Your task to perform on an android device: Open Chrome and go to settings Image 0: 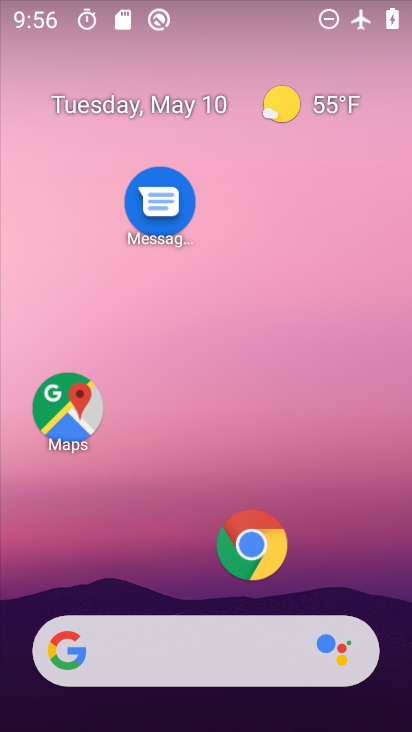
Step 0: click (243, 537)
Your task to perform on an android device: Open Chrome and go to settings Image 1: 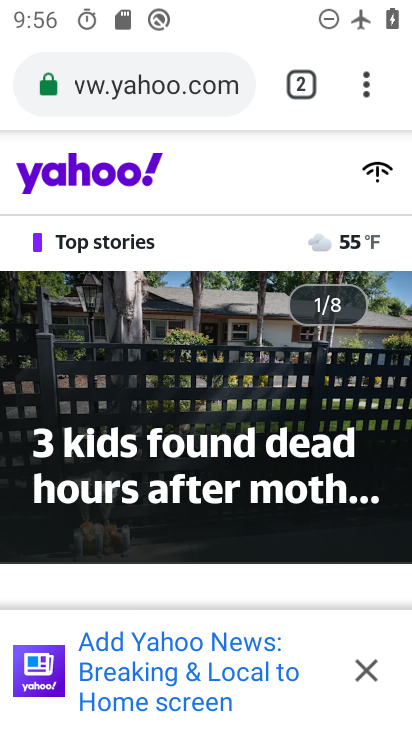
Step 1: click (360, 69)
Your task to perform on an android device: Open Chrome and go to settings Image 2: 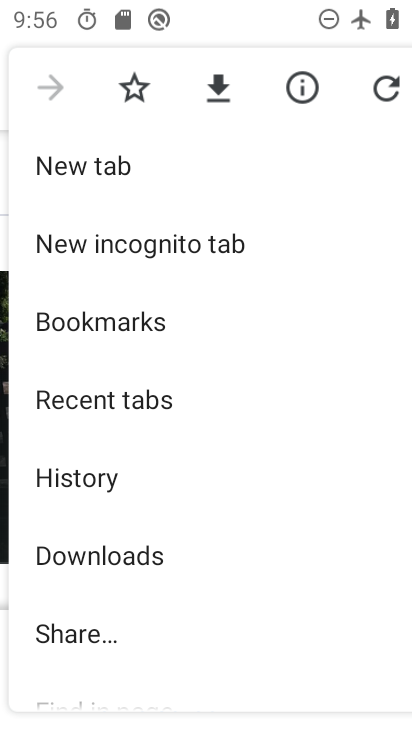
Step 2: drag from (197, 647) to (173, 295)
Your task to perform on an android device: Open Chrome and go to settings Image 3: 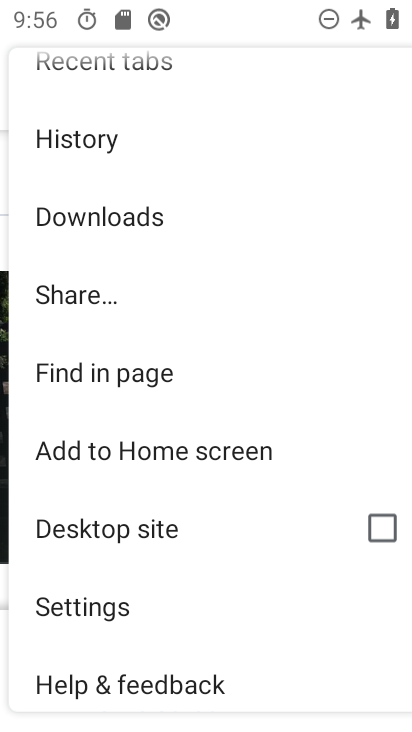
Step 3: click (107, 614)
Your task to perform on an android device: Open Chrome and go to settings Image 4: 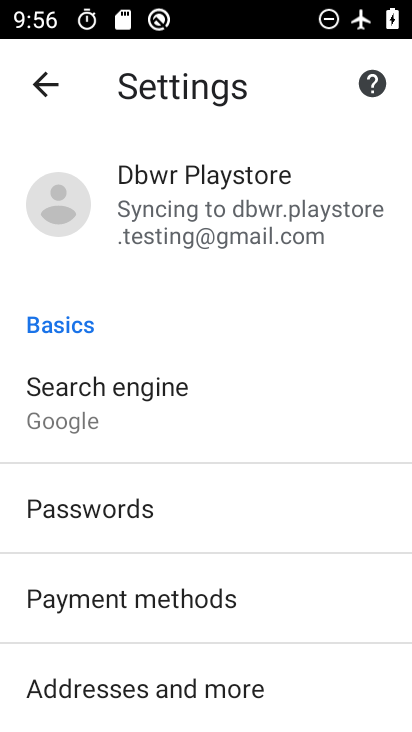
Step 4: task complete